Your task to perform on an android device: remove spam from my inbox in the gmail app Image 0: 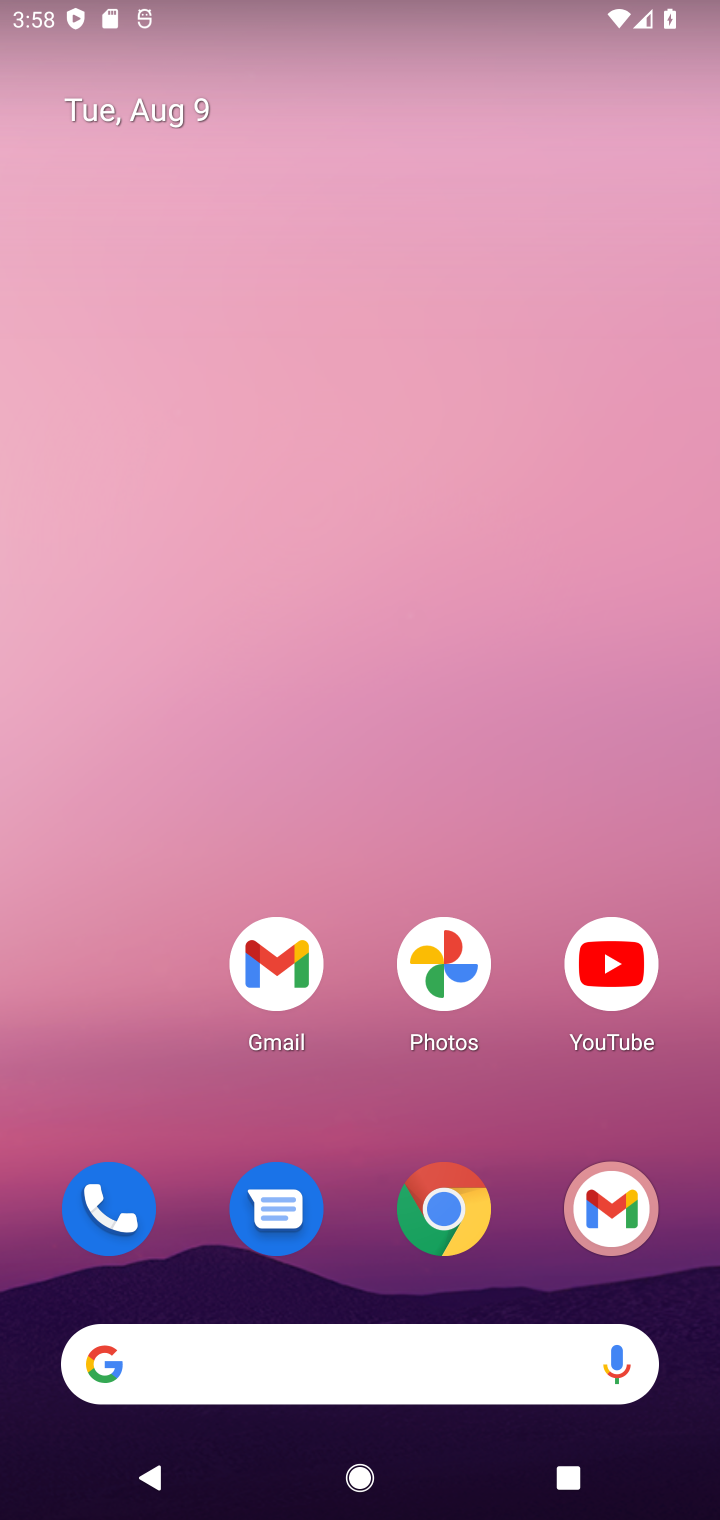
Step 0: click (272, 959)
Your task to perform on an android device: remove spam from my inbox in the gmail app Image 1: 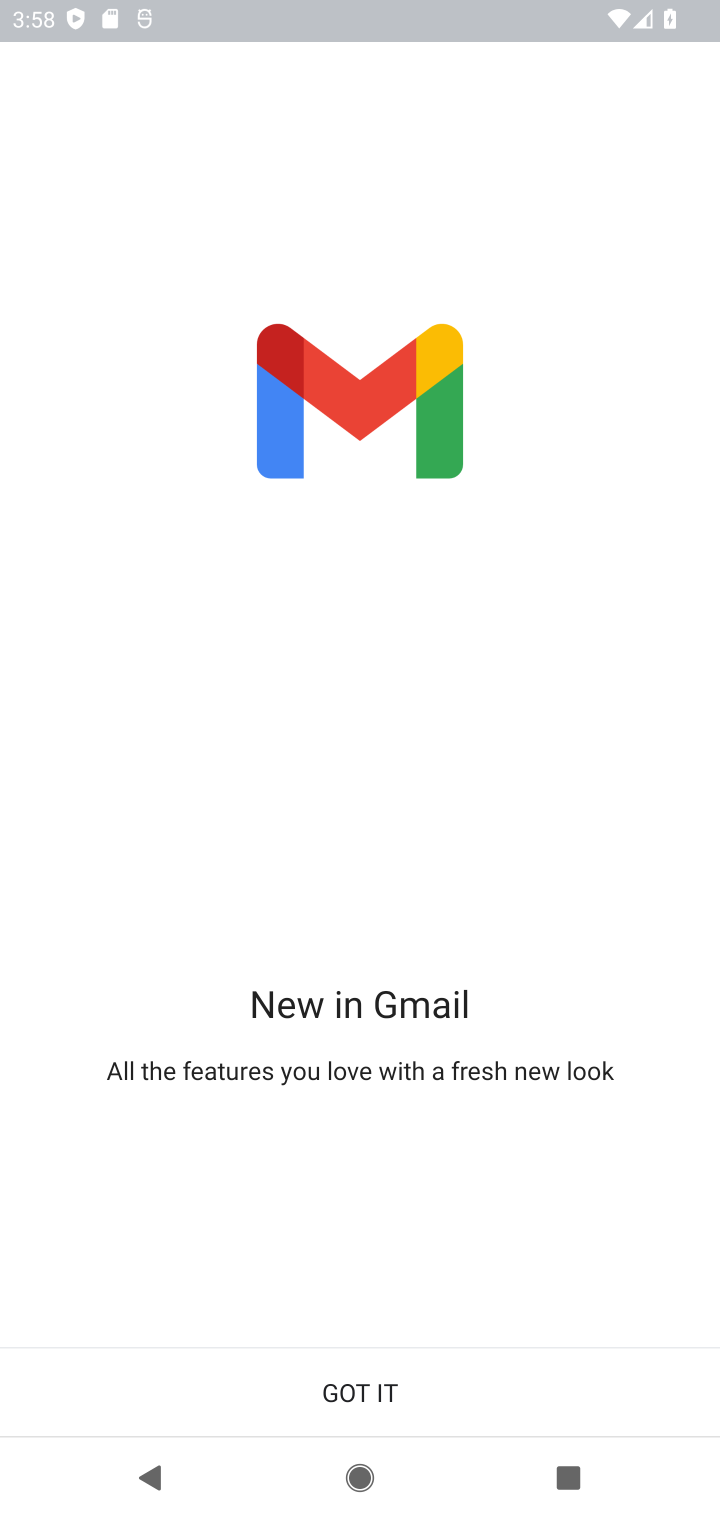
Step 1: click (338, 1387)
Your task to perform on an android device: remove spam from my inbox in the gmail app Image 2: 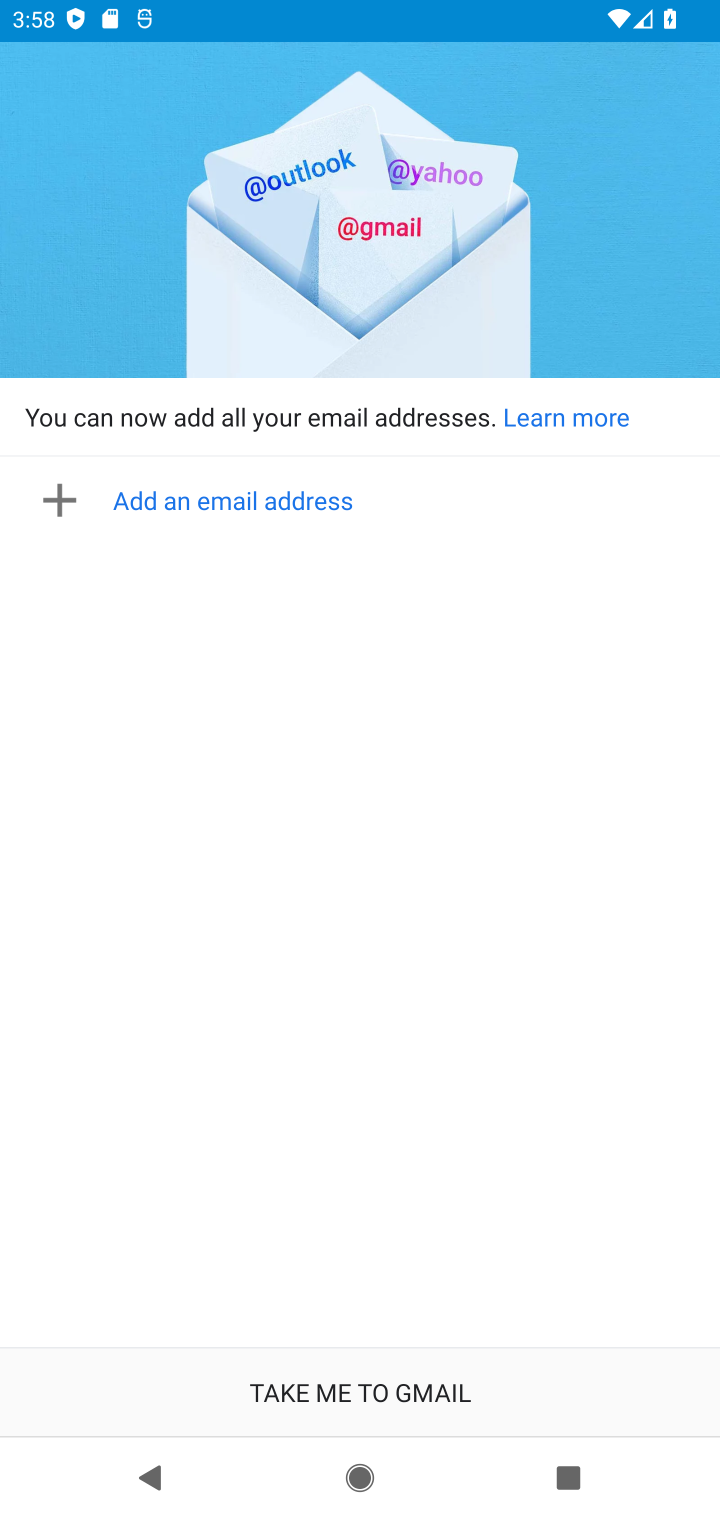
Step 2: click (414, 1391)
Your task to perform on an android device: remove spam from my inbox in the gmail app Image 3: 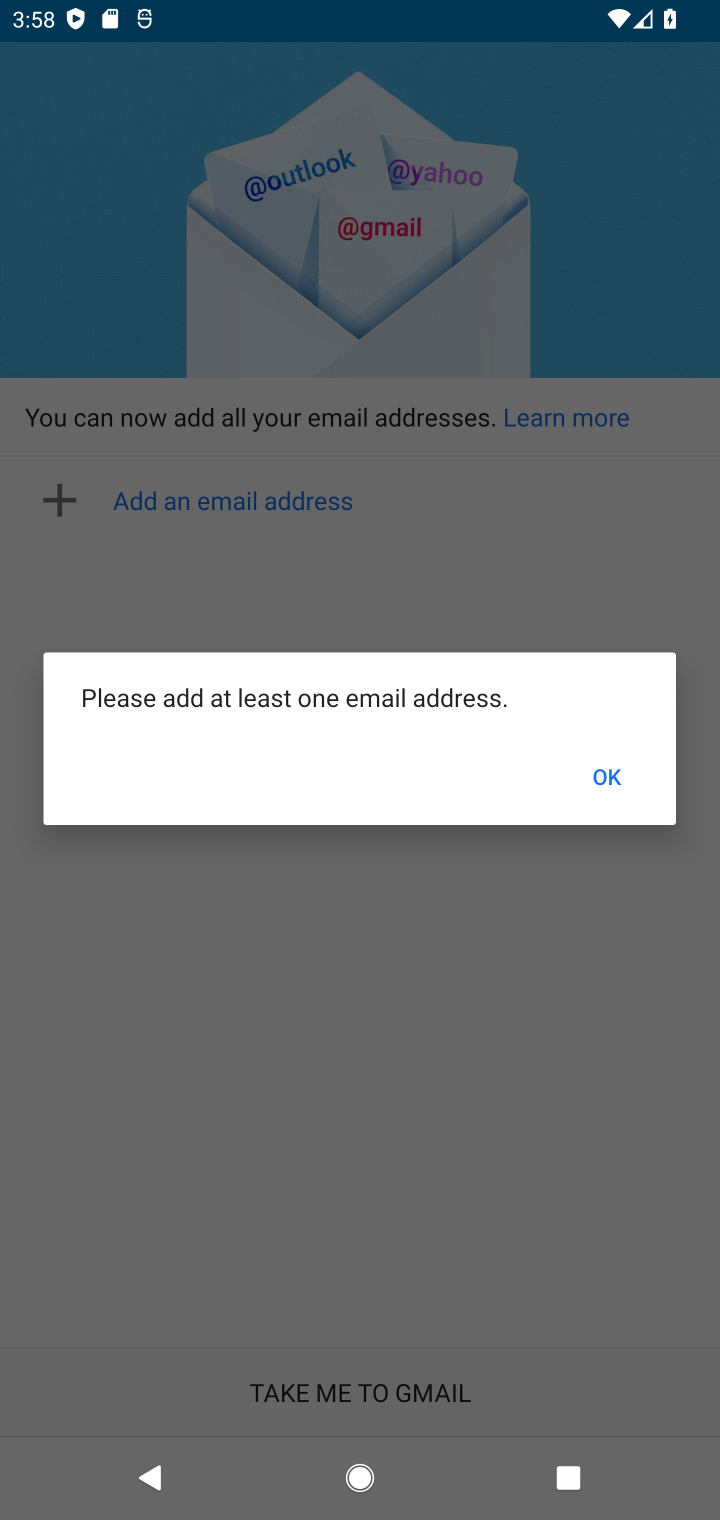
Step 3: click (635, 1084)
Your task to perform on an android device: remove spam from my inbox in the gmail app Image 4: 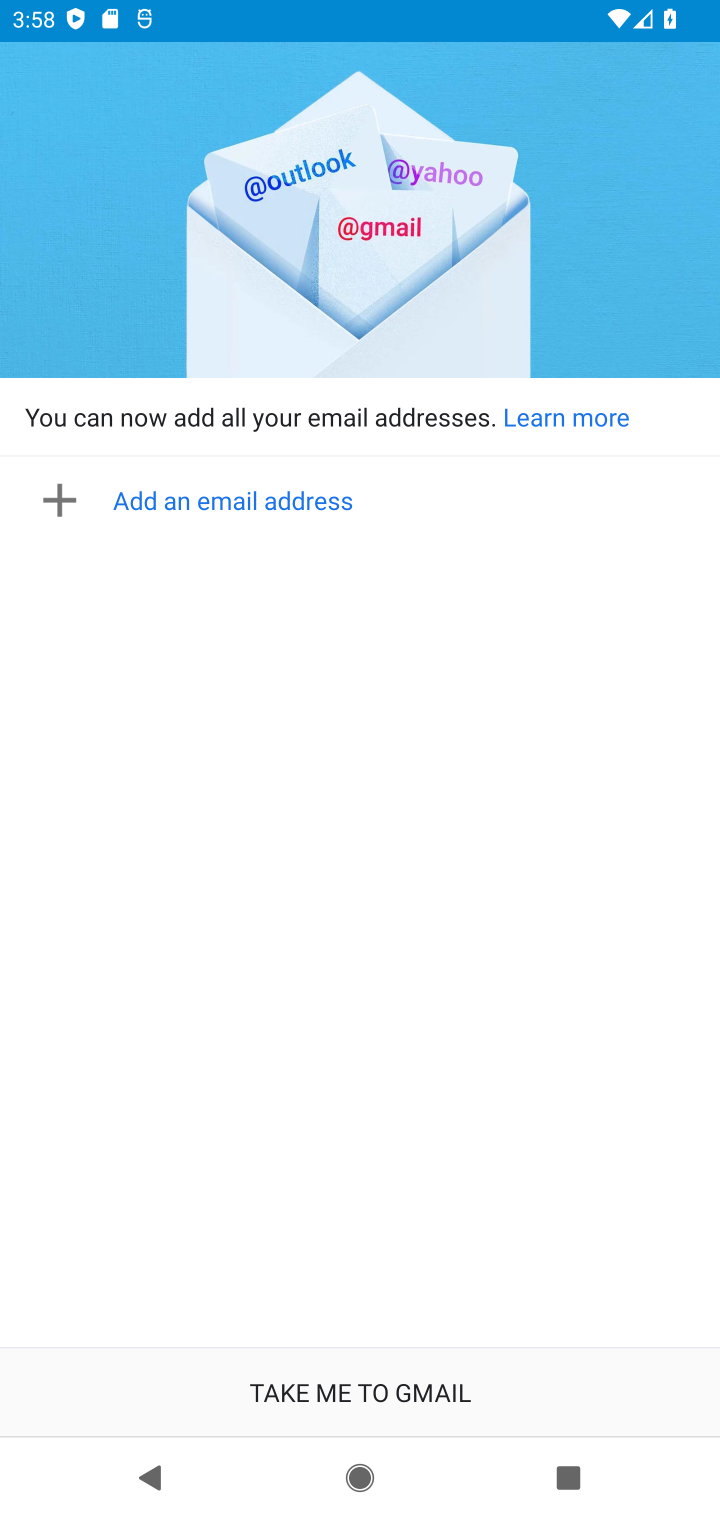
Step 4: click (379, 1405)
Your task to perform on an android device: remove spam from my inbox in the gmail app Image 5: 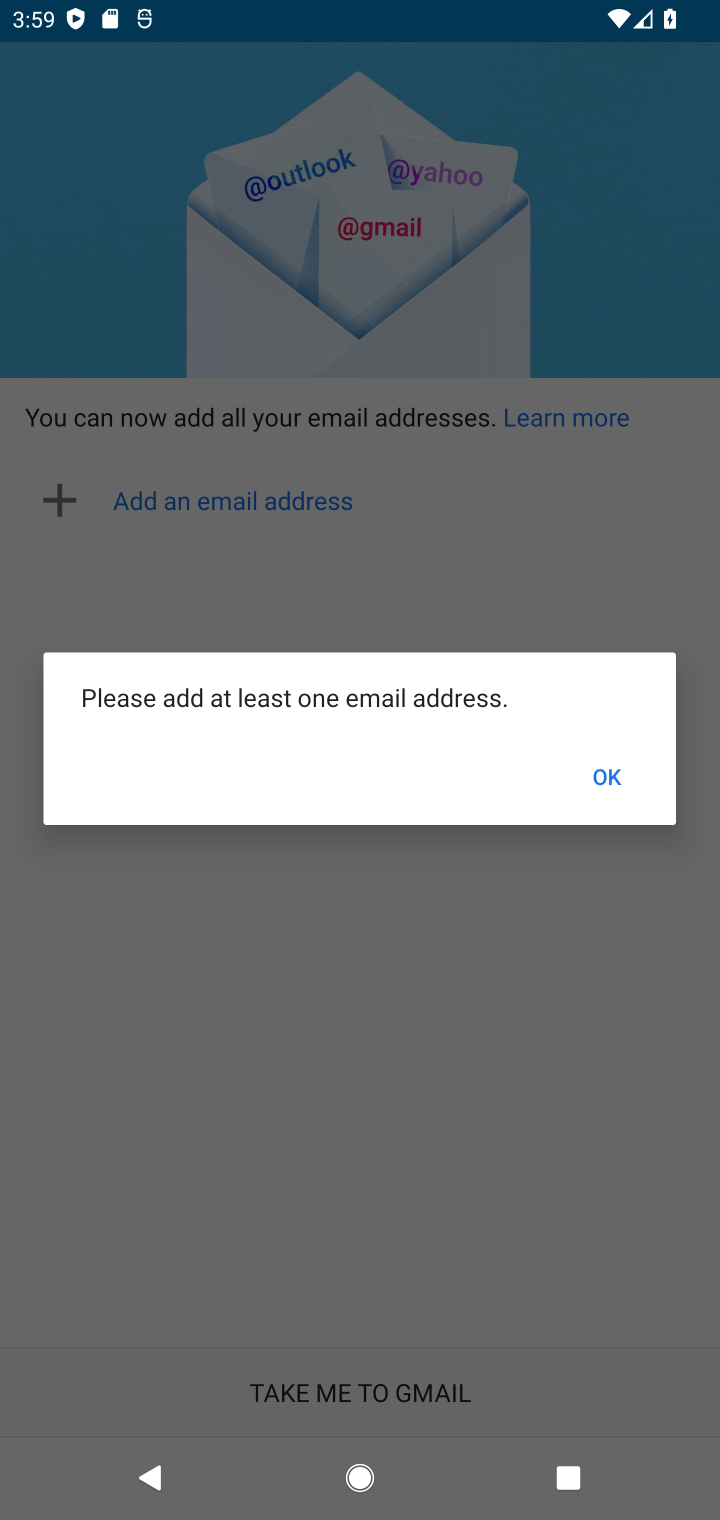
Step 5: task complete